Your task to perform on an android device: manage bookmarks in the chrome app Image 0: 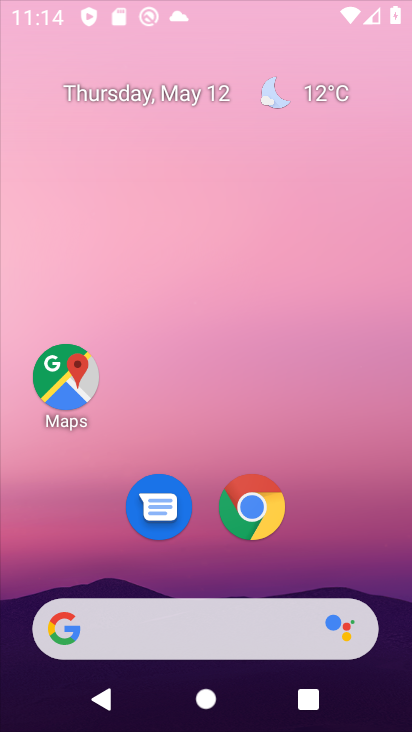
Step 0: click (395, 133)
Your task to perform on an android device: manage bookmarks in the chrome app Image 1: 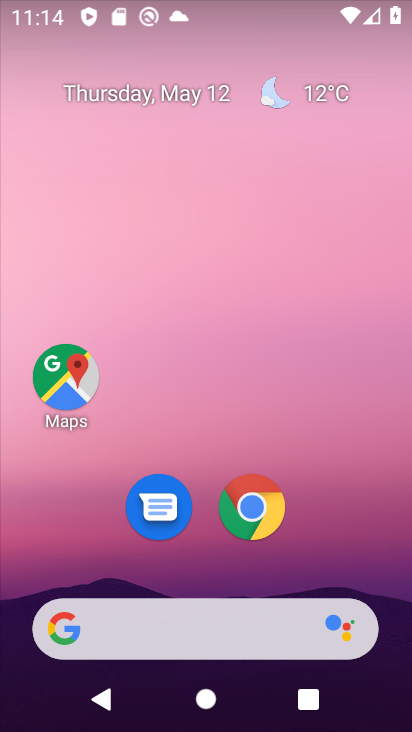
Step 1: click (258, 493)
Your task to perform on an android device: manage bookmarks in the chrome app Image 2: 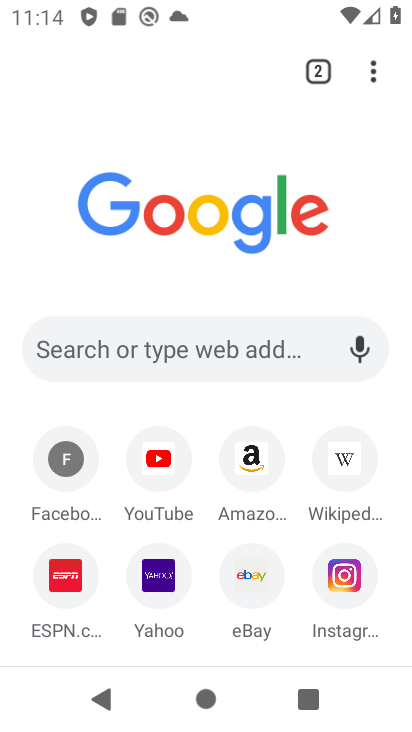
Step 2: click (374, 77)
Your task to perform on an android device: manage bookmarks in the chrome app Image 3: 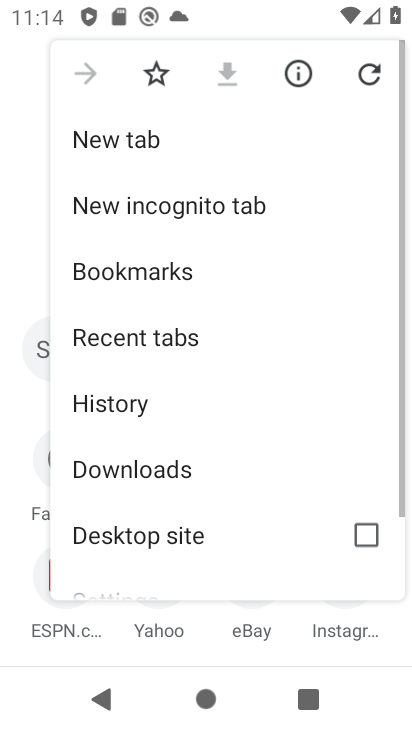
Step 3: click (163, 270)
Your task to perform on an android device: manage bookmarks in the chrome app Image 4: 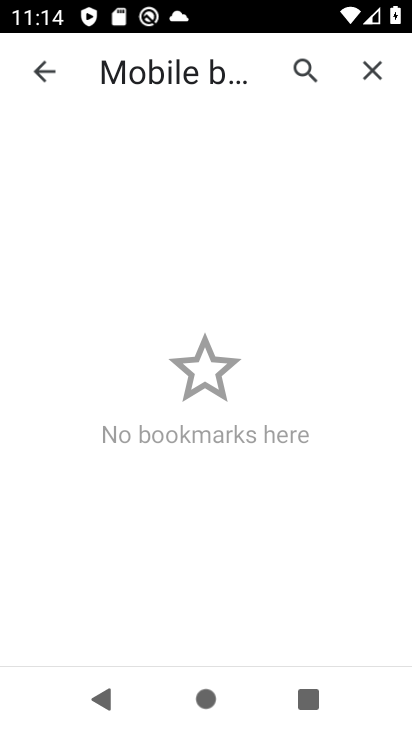
Step 4: task complete